Your task to perform on an android device: Go to Yahoo.com Image 0: 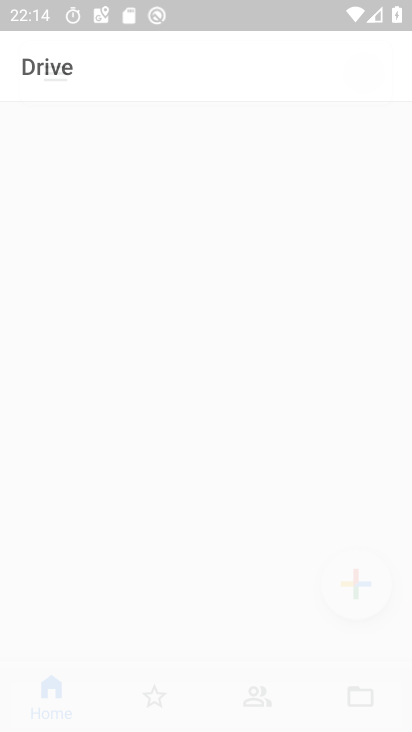
Step 0: press home button
Your task to perform on an android device: Go to Yahoo.com Image 1: 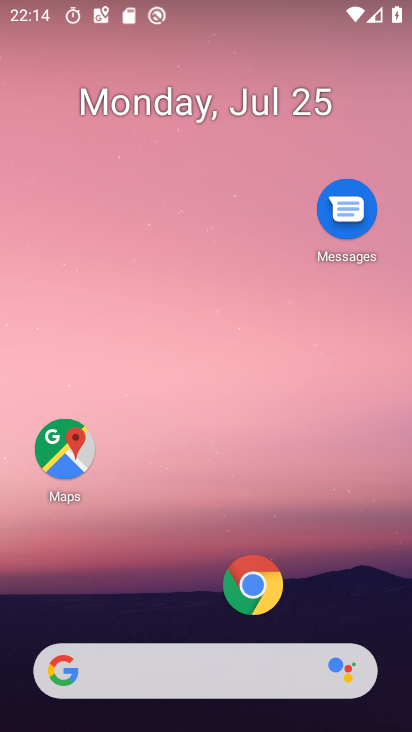
Step 1: press home button
Your task to perform on an android device: Go to Yahoo.com Image 2: 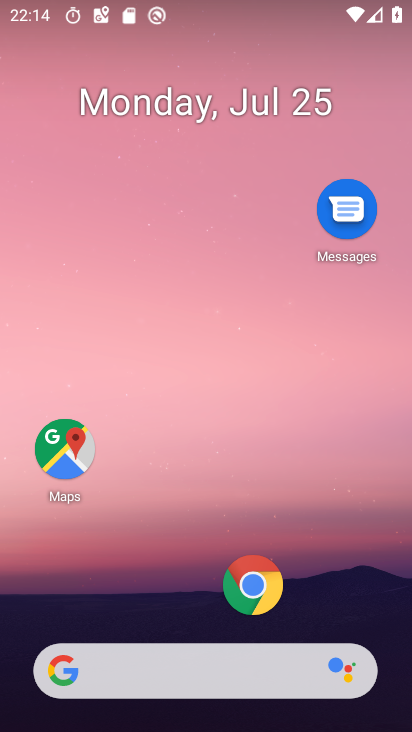
Step 2: click (252, 602)
Your task to perform on an android device: Go to Yahoo.com Image 3: 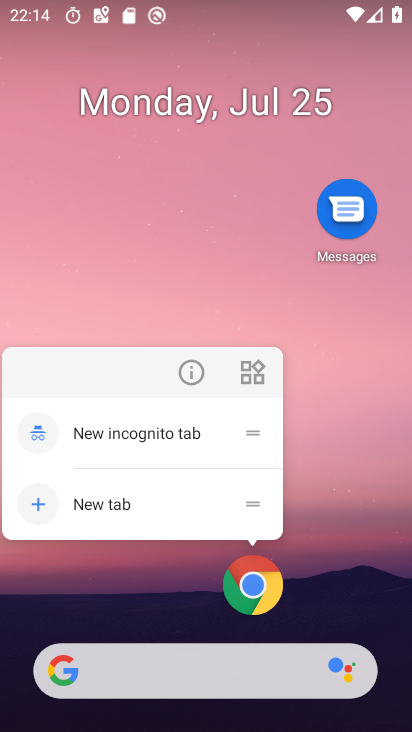
Step 3: click (262, 574)
Your task to perform on an android device: Go to Yahoo.com Image 4: 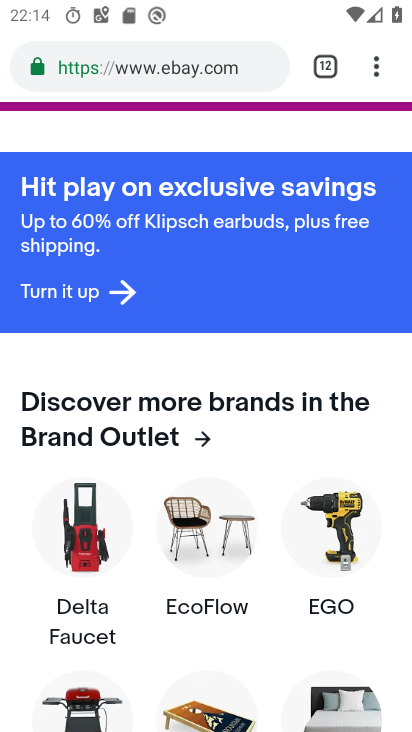
Step 4: drag from (373, 71) to (181, 128)
Your task to perform on an android device: Go to Yahoo.com Image 5: 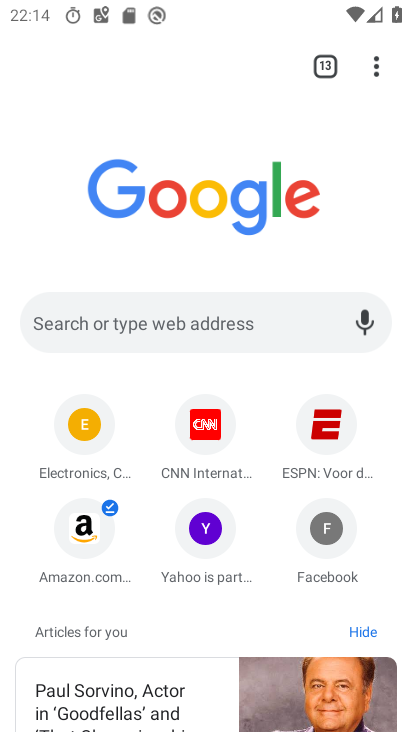
Step 5: click (212, 531)
Your task to perform on an android device: Go to Yahoo.com Image 6: 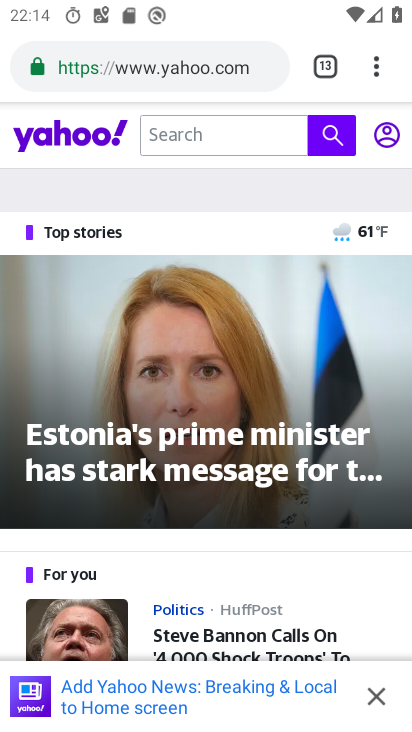
Step 6: click (253, 183)
Your task to perform on an android device: Go to Yahoo.com Image 7: 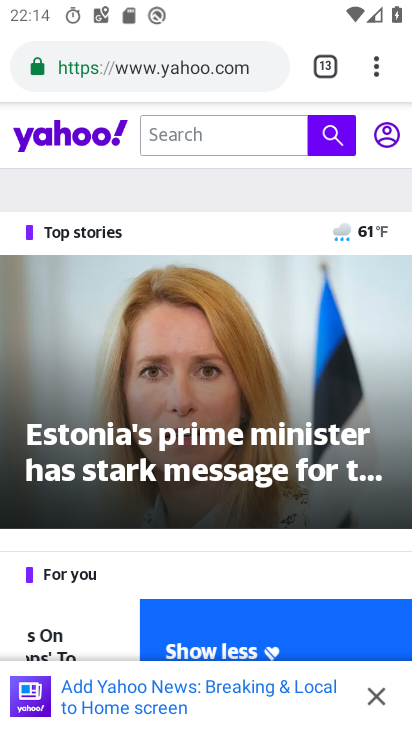
Step 7: task complete